Your task to perform on an android device: Search for seafood restaurants on Google Maps Image 0: 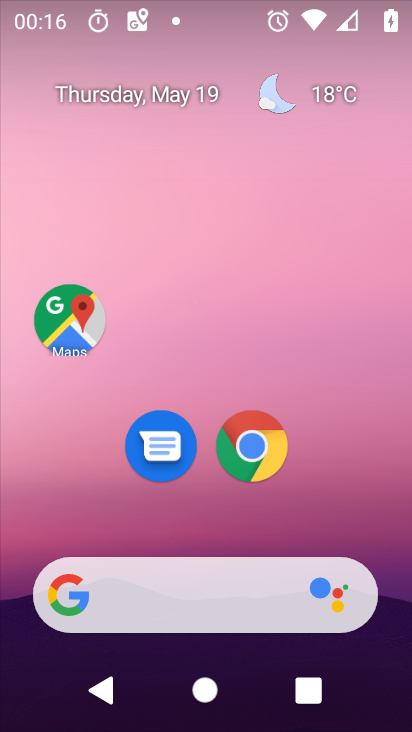
Step 0: press home button
Your task to perform on an android device: Search for seafood restaurants on Google Maps Image 1: 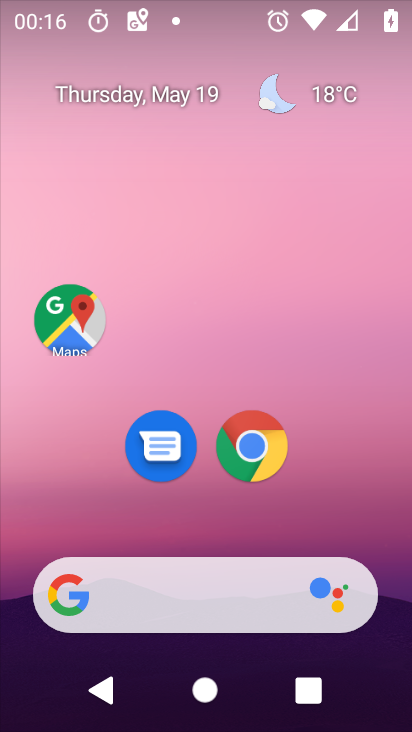
Step 1: click (71, 333)
Your task to perform on an android device: Search for seafood restaurants on Google Maps Image 2: 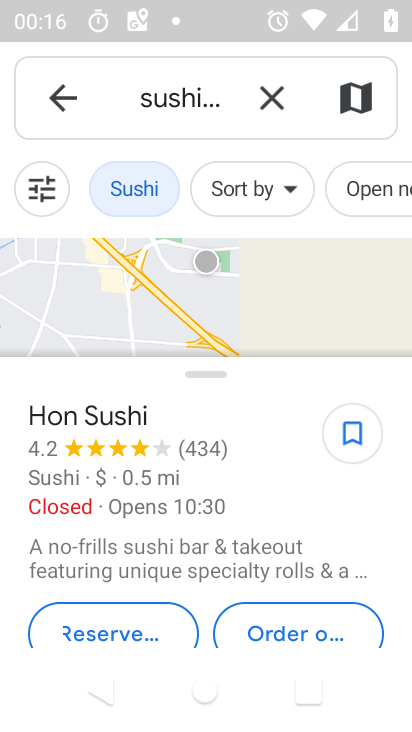
Step 2: click (269, 100)
Your task to perform on an android device: Search for seafood restaurants on Google Maps Image 3: 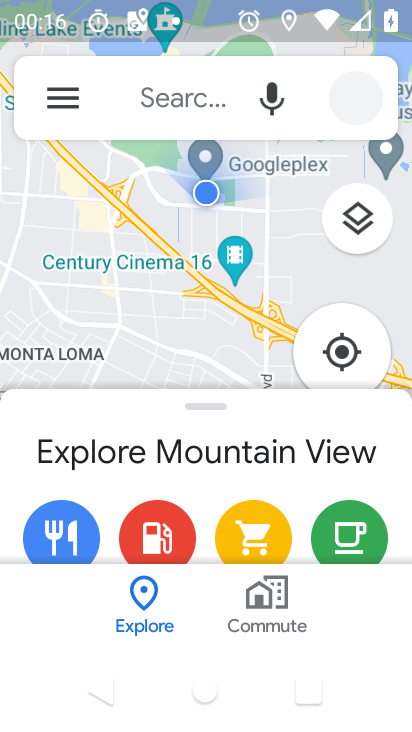
Step 3: click (172, 107)
Your task to perform on an android device: Search for seafood restaurants on Google Maps Image 4: 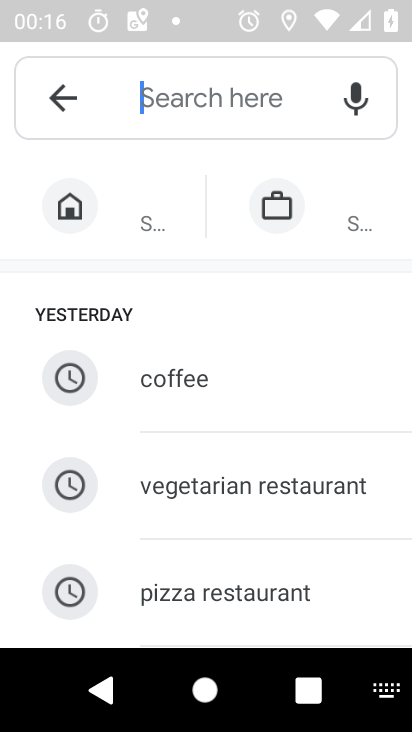
Step 4: drag from (208, 570) to (377, 246)
Your task to perform on an android device: Search for seafood restaurants on Google Maps Image 5: 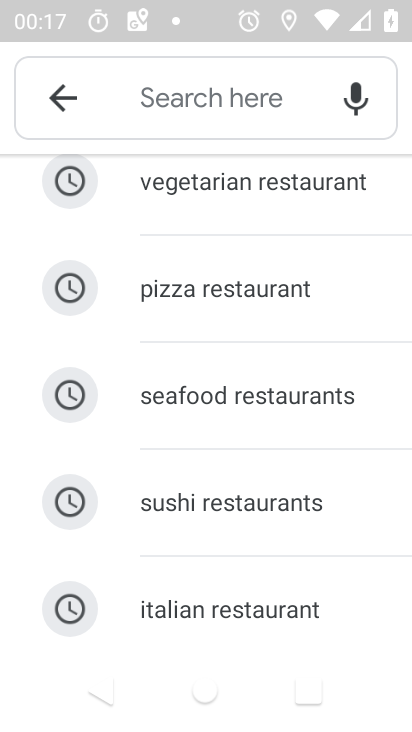
Step 5: click (242, 401)
Your task to perform on an android device: Search for seafood restaurants on Google Maps Image 6: 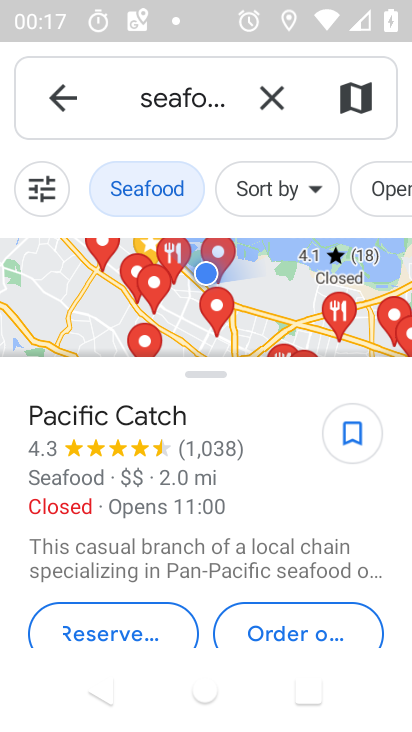
Step 6: task complete